Your task to perform on an android device: Search for Mexican restaurants on Maps Image 0: 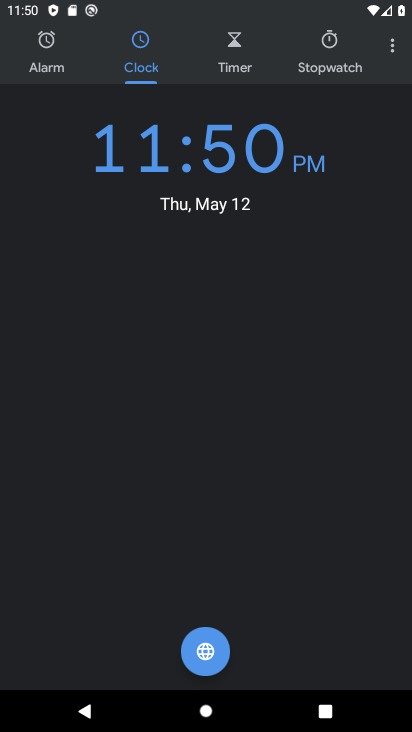
Step 0: press home button
Your task to perform on an android device: Search for Mexican restaurants on Maps Image 1: 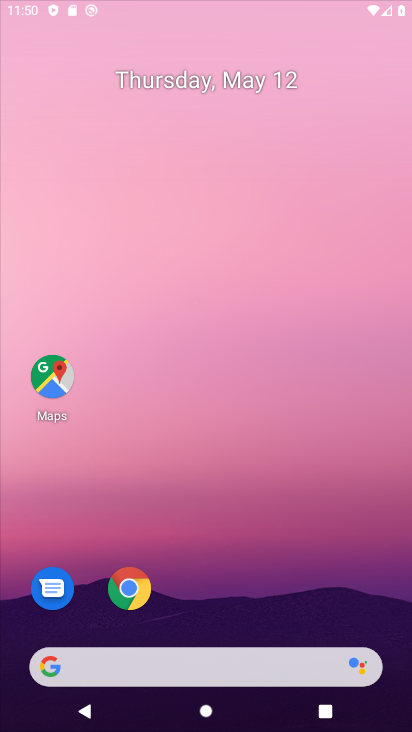
Step 1: drag from (210, 644) to (278, 162)
Your task to perform on an android device: Search for Mexican restaurants on Maps Image 2: 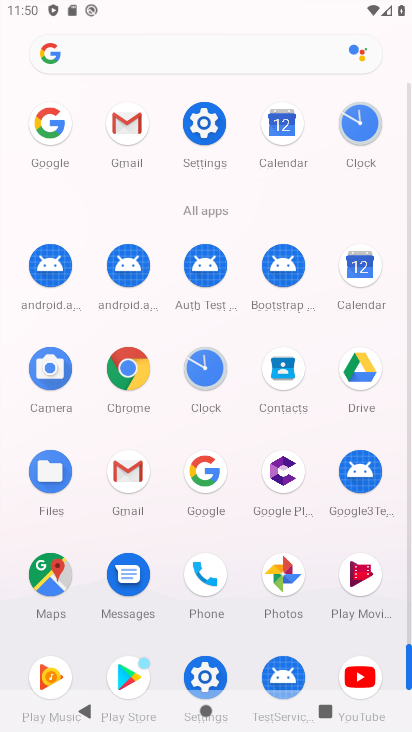
Step 2: click (63, 587)
Your task to perform on an android device: Search for Mexican restaurants on Maps Image 3: 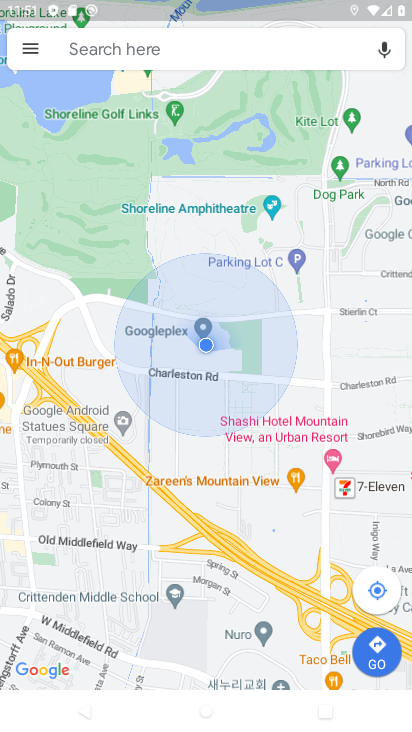
Step 3: click (160, 40)
Your task to perform on an android device: Search for Mexican restaurants on Maps Image 4: 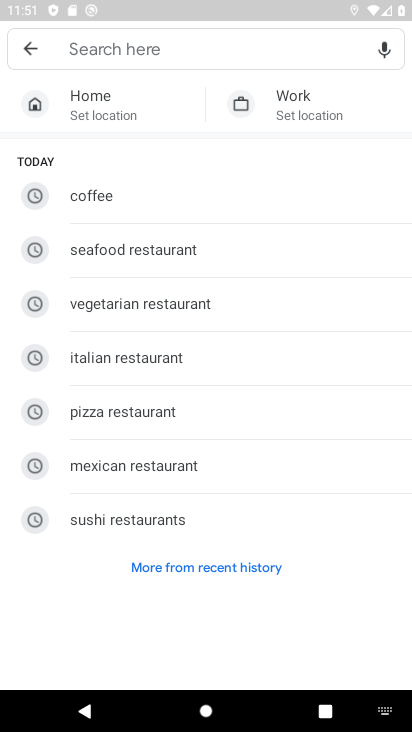
Step 4: click (167, 468)
Your task to perform on an android device: Search for Mexican restaurants on Maps Image 5: 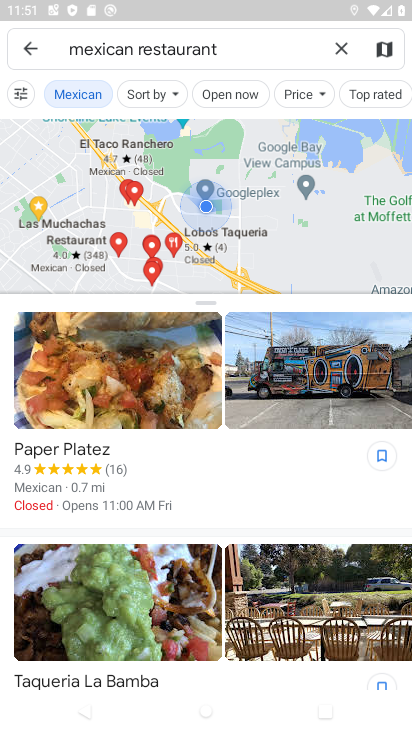
Step 5: task complete